Your task to perform on an android device: Open battery settings Image 0: 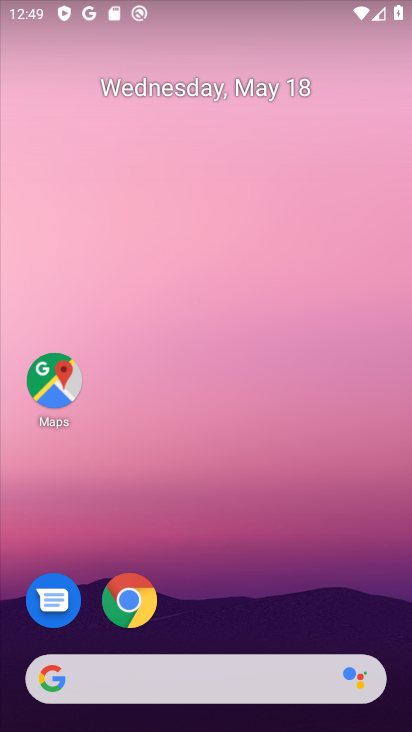
Step 0: drag from (199, 630) to (334, 123)
Your task to perform on an android device: Open battery settings Image 1: 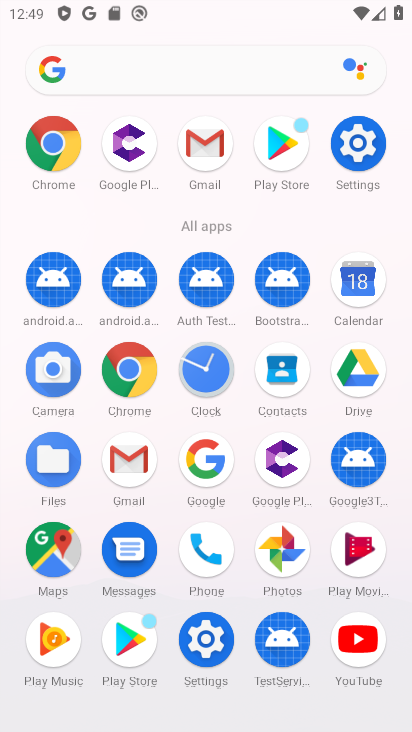
Step 1: click (360, 146)
Your task to perform on an android device: Open battery settings Image 2: 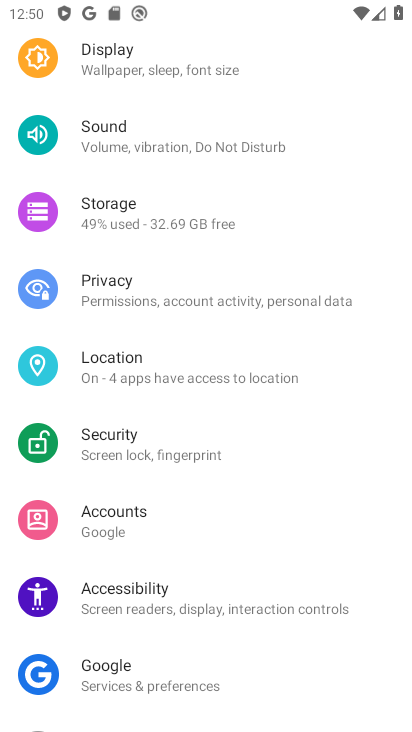
Step 2: drag from (219, 107) to (153, 580)
Your task to perform on an android device: Open battery settings Image 3: 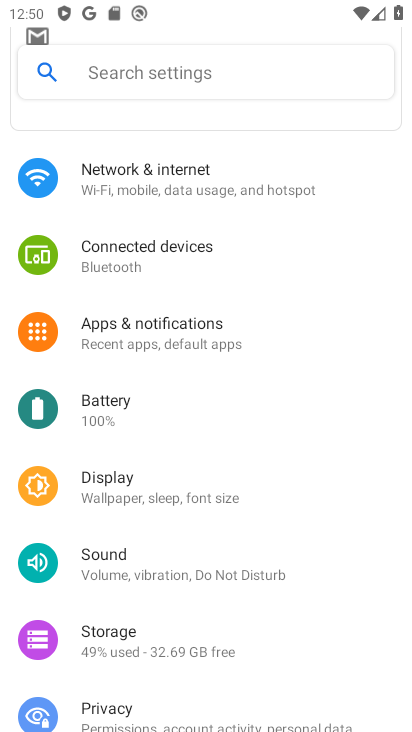
Step 3: click (141, 414)
Your task to perform on an android device: Open battery settings Image 4: 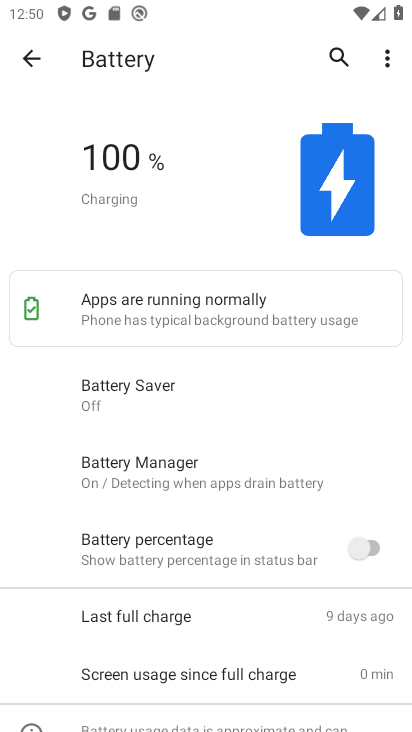
Step 4: task complete